Your task to perform on an android device: change the clock display to digital Image 0: 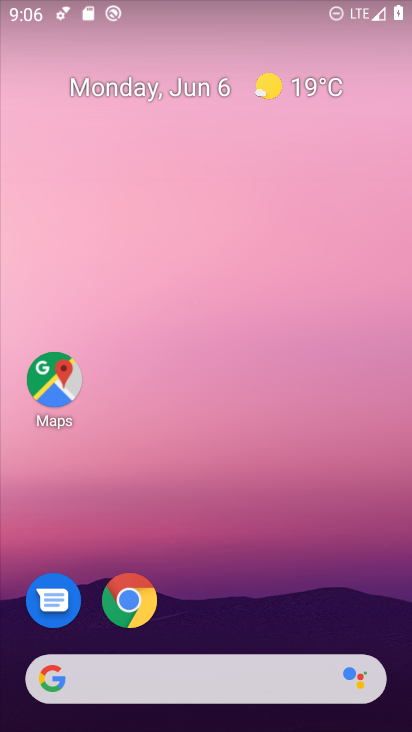
Step 0: drag from (283, 600) to (168, 10)
Your task to perform on an android device: change the clock display to digital Image 1: 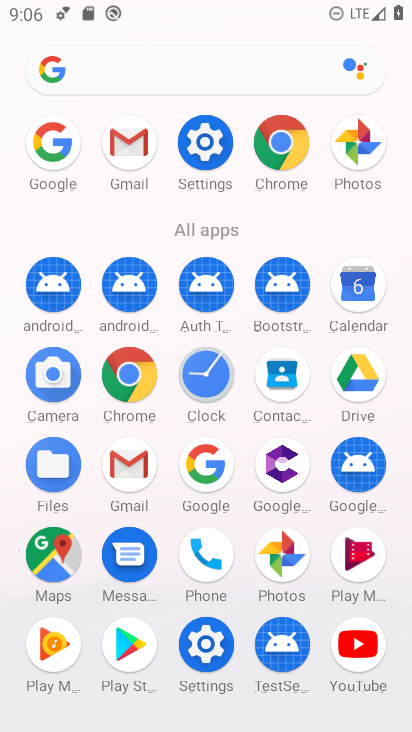
Step 1: click (206, 383)
Your task to perform on an android device: change the clock display to digital Image 2: 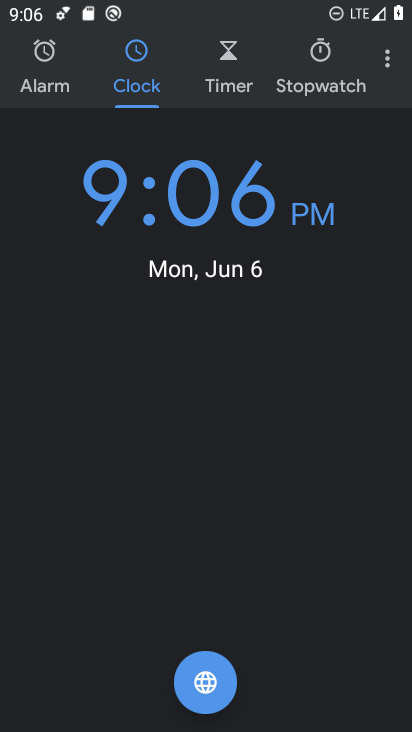
Step 2: click (381, 70)
Your task to perform on an android device: change the clock display to digital Image 3: 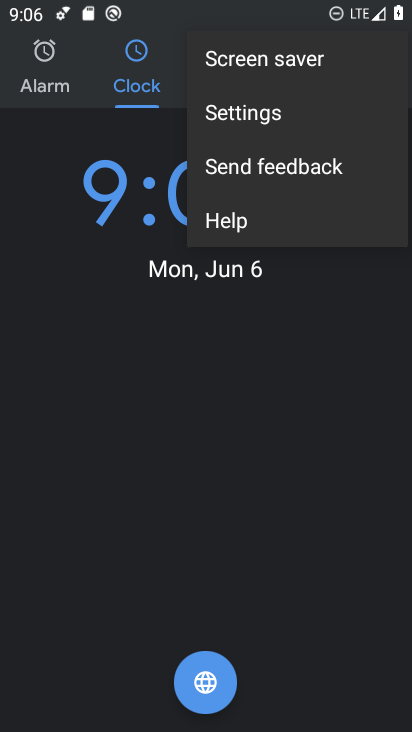
Step 3: click (260, 124)
Your task to perform on an android device: change the clock display to digital Image 4: 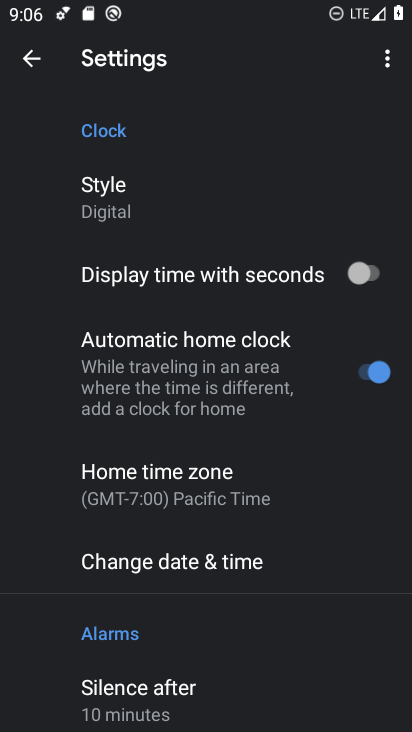
Step 4: task complete